Your task to perform on an android device: open app "Messages" (install if not already installed) Image 0: 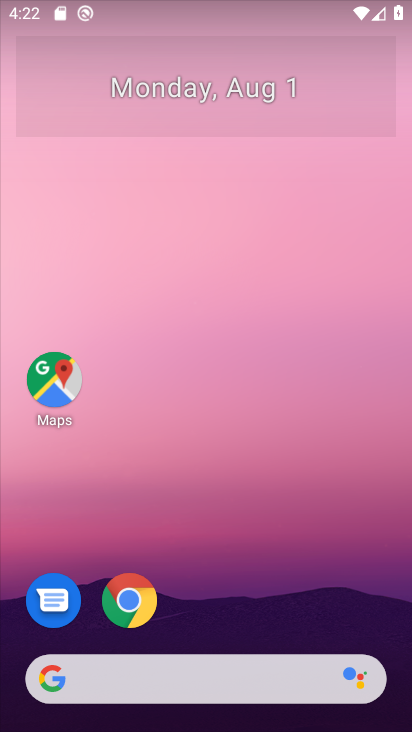
Step 0: drag from (380, 567) to (358, 32)
Your task to perform on an android device: open app "Messages" (install if not already installed) Image 1: 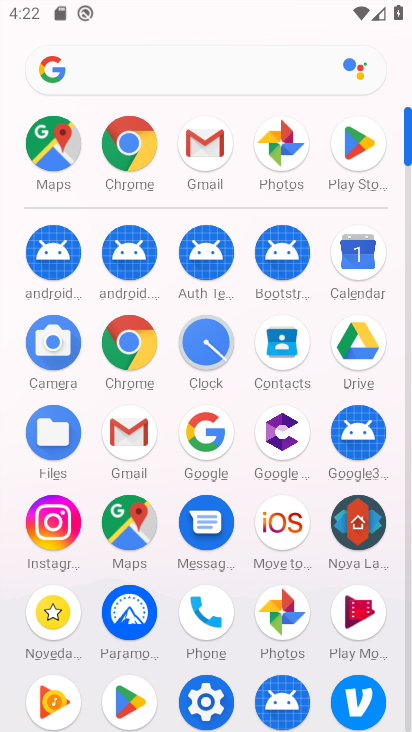
Step 1: click (349, 149)
Your task to perform on an android device: open app "Messages" (install if not already installed) Image 2: 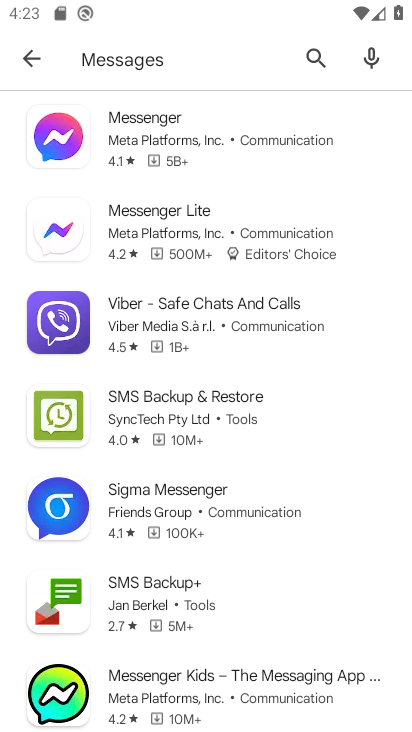
Step 2: task complete